Your task to perform on an android device: find snoozed emails in the gmail app Image 0: 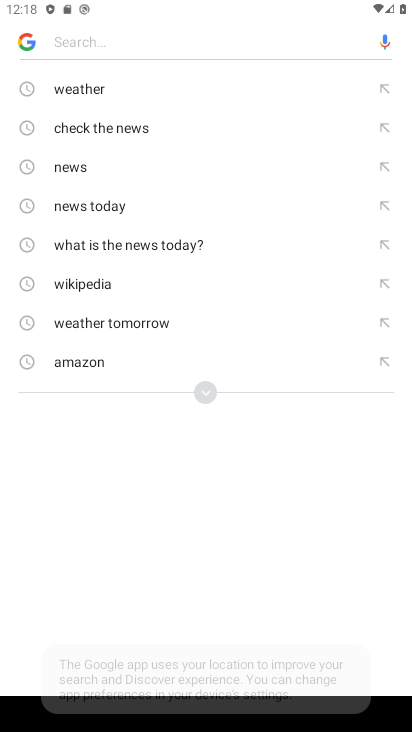
Step 0: press home button
Your task to perform on an android device: find snoozed emails in the gmail app Image 1: 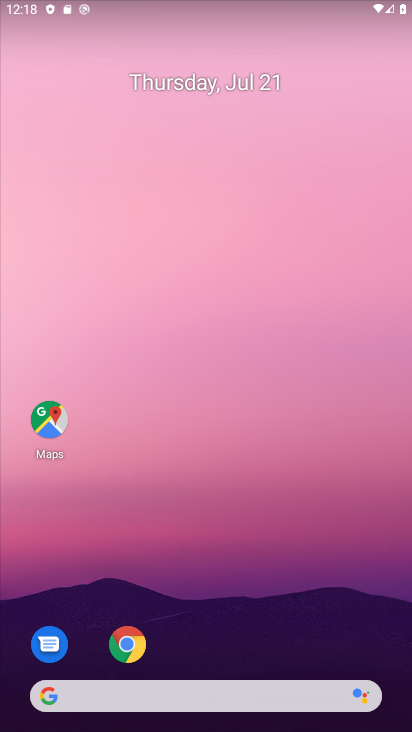
Step 1: drag from (323, 537) to (1, 212)
Your task to perform on an android device: find snoozed emails in the gmail app Image 2: 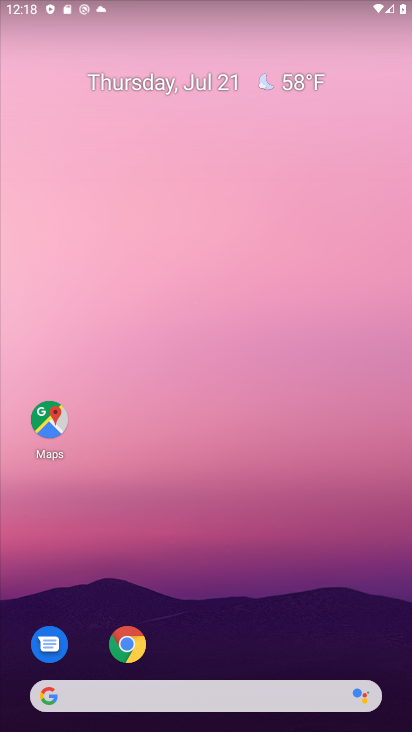
Step 2: drag from (337, 551) to (176, 33)
Your task to perform on an android device: find snoozed emails in the gmail app Image 3: 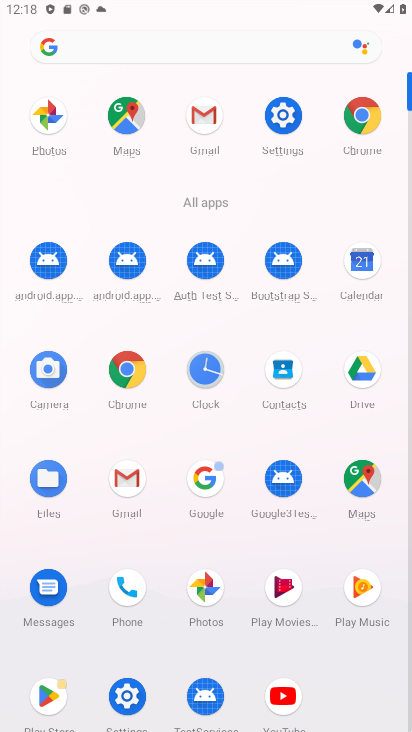
Step 3: click (121, 495)
Your task to perform on an android device: find snoozed emails in the gmail app Image 4: 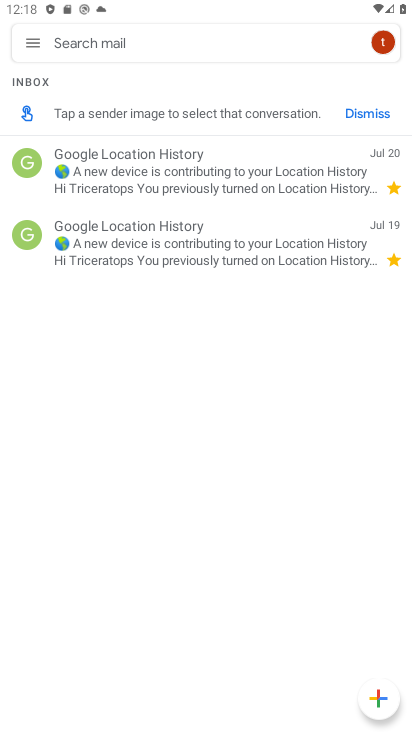
Step 4: click (40, 48)
Your task to perform on an android device: find snoozed emails in the gmail app Image 5: 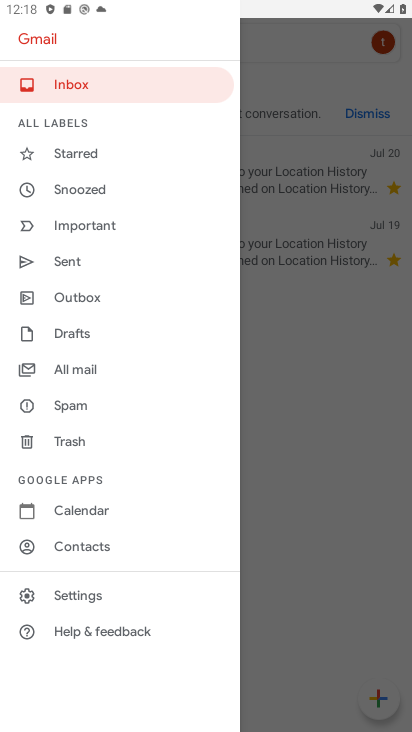
Step 5: click (52, 191)
Your task to perform on an android device: find snoozed emails in the gmail app Image 6: 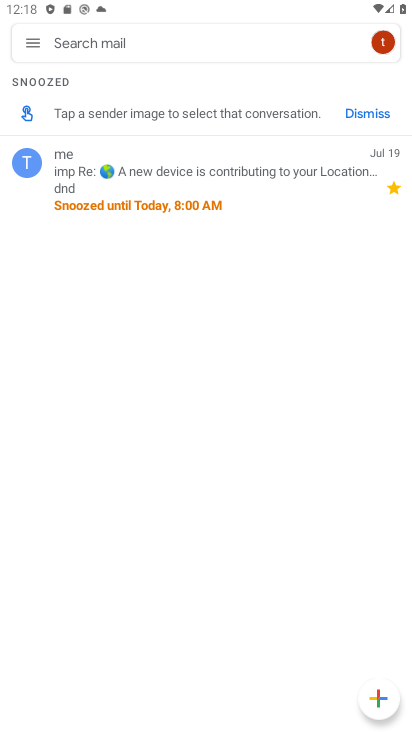
Step 6: task complete